Your task to perform on an android device: see sites visited before in the chrome app Image 0: 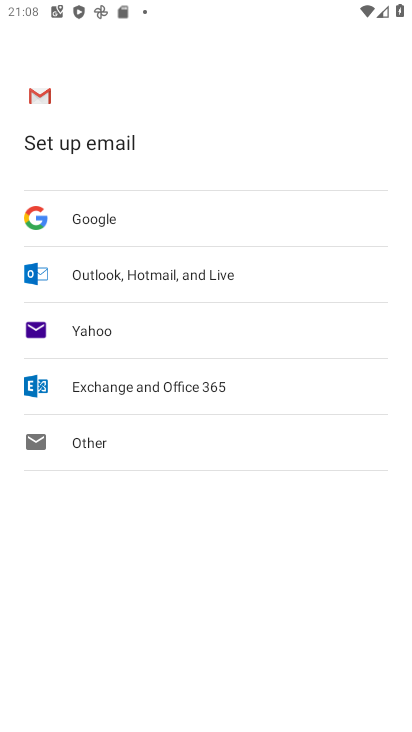
Step 0: press home button
Your task to perform on an android device: see sites visited before in the chrome app Image 1: 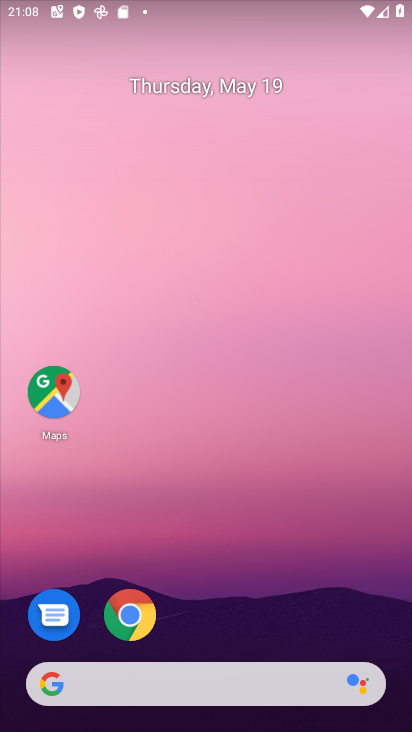
Step 1: click (132, 610)
Your task to perform on an android device: see sites visited before in the chrome app Image 2: 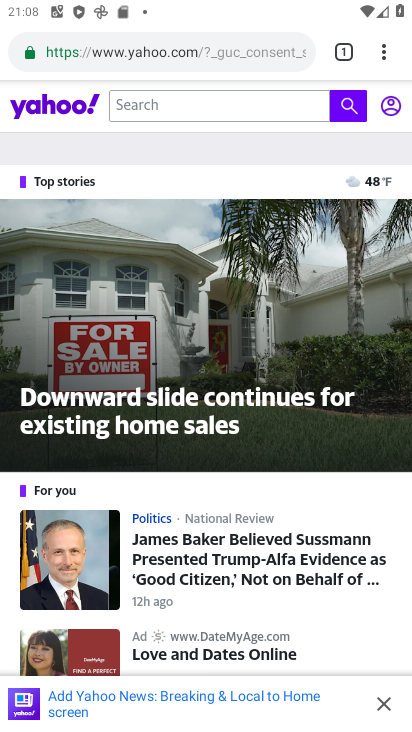
Step 2: click (375, 53)
Your task to perform on an android device: see sites visited before in the chrome app Image 3: 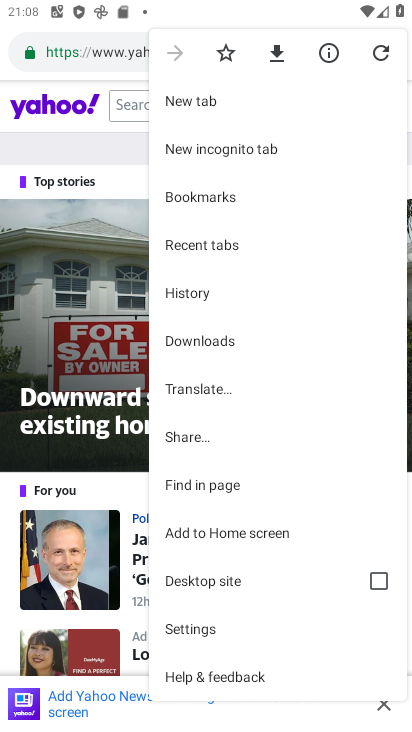
Step 3: click (218, 292)
Your task to perform on an android device: see sites visited before in the chrome app Image 4: 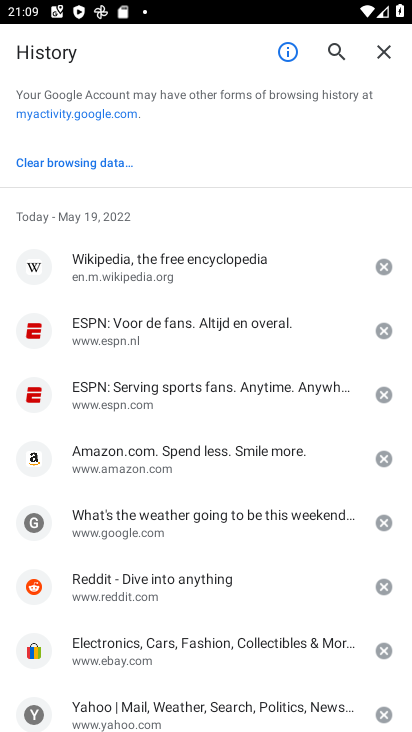
Step 4: task complete